Your task to perform on an android device: delete a single message in the gmail app Image 0: 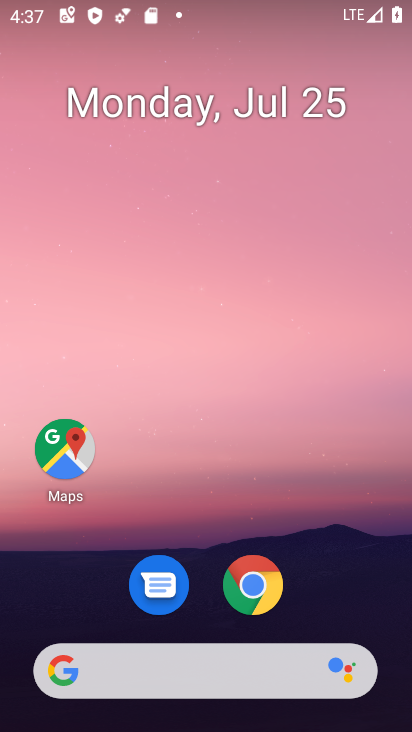
Step 0: drag from (325, 564) to (339, 47)
Your task to perform on an android device: delete a single message in the gmail app Image 1: 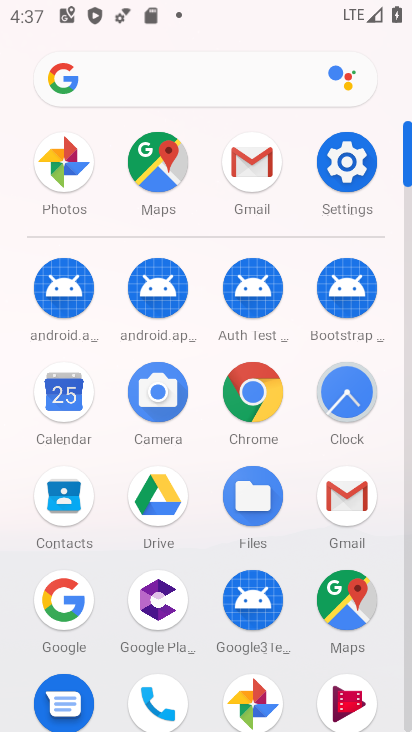
Step 1: click (259, 160)
Your task to perform on an android device: delete a single message in the gmail app Image 2: 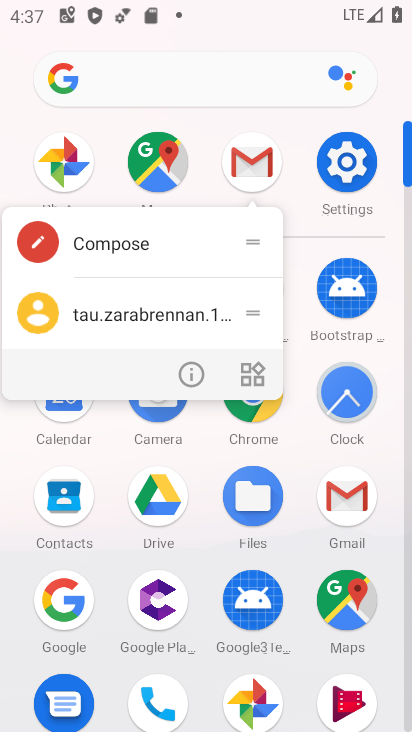
Step 2: click (259, 159)
Your task to perform on an android device: delete a single message in the gmail app Image 3: 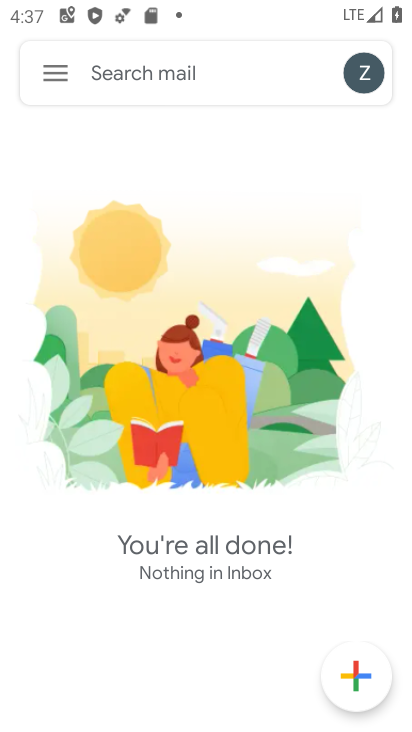
Step 3: click (56, 67)
Your task to perform on an android device: delete a single message in the gmail app Image 4: 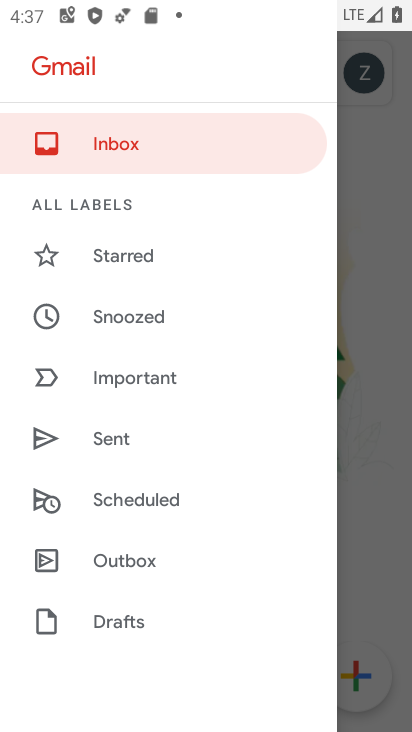
Step 4: drag from (193, 543) to (230, 143)
Your task to perform on an android device: delete a single message in the gmail app Image 5: 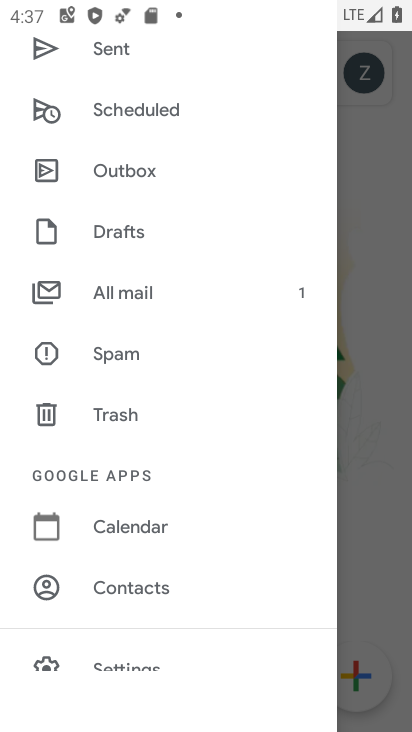
Step 5: click (139, 292)
Your task to perform on an android device: delete a single message in the gmail app Image 6: 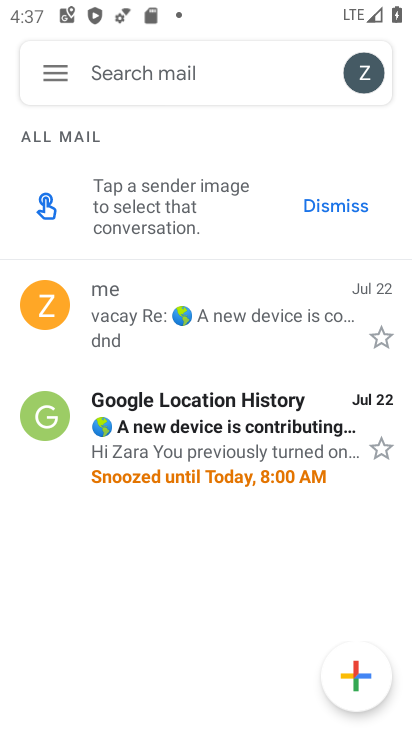
Step 6: click (142, 298)
Your task to perform on an android device: delete a single message in the gmail app Image 7: 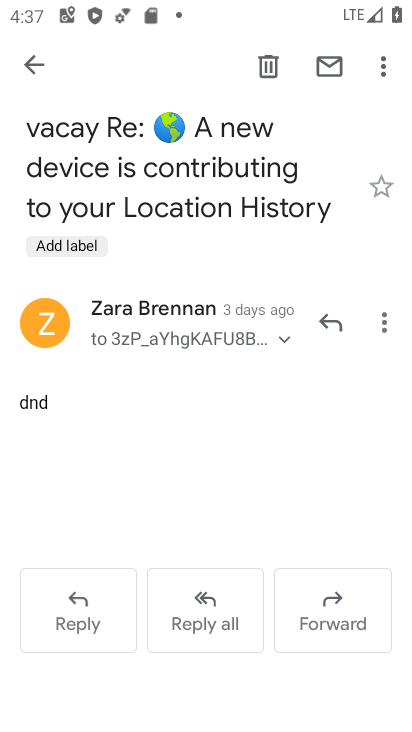
Step 7: click (272, 68)
Your task to perform on an android device: delete a single message in the gmail app Image 8: 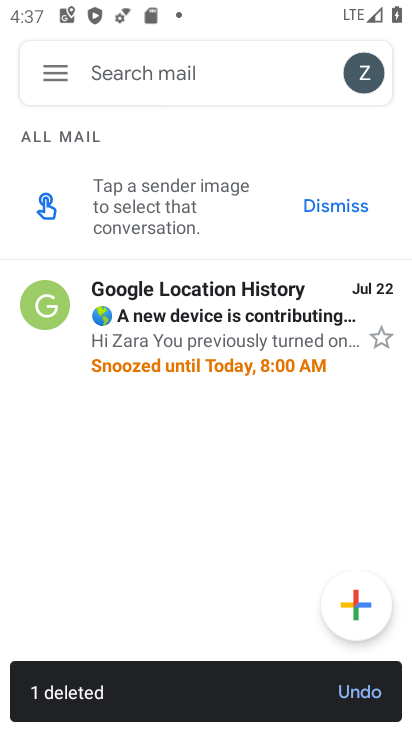
Step 8: task complete